Your task to perform on an android device: stop showing notifications on the lock screen Image 0: 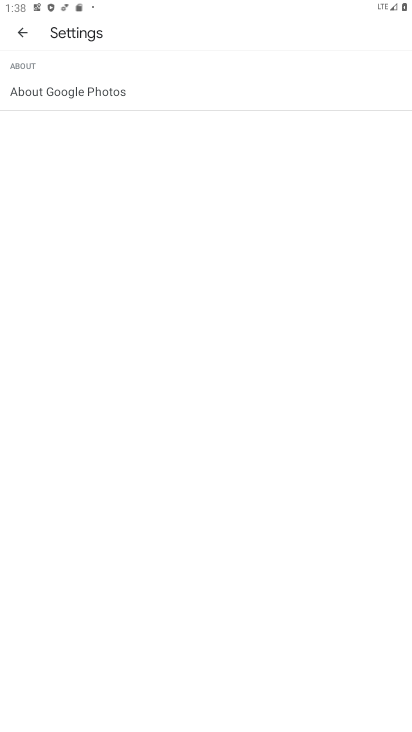
Step 0: press home button
Your task to perform on an android device: stop showing notifications on the lock screen Image 1: 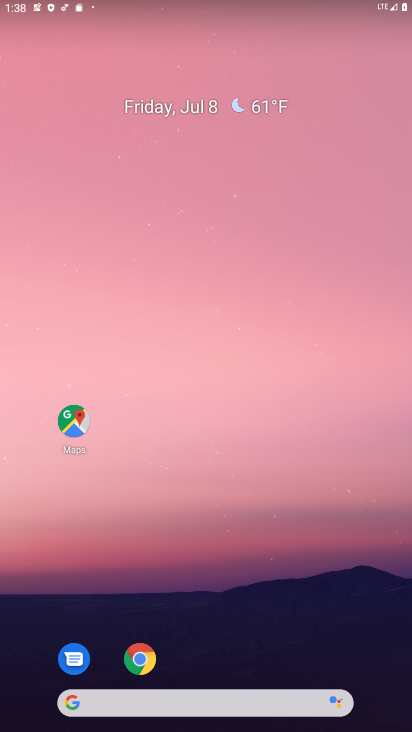
Step 1: drag from (223, 688) to (166, 65)
Your task to perform on an android device: stop showing notifications on the lock screen Image 2: 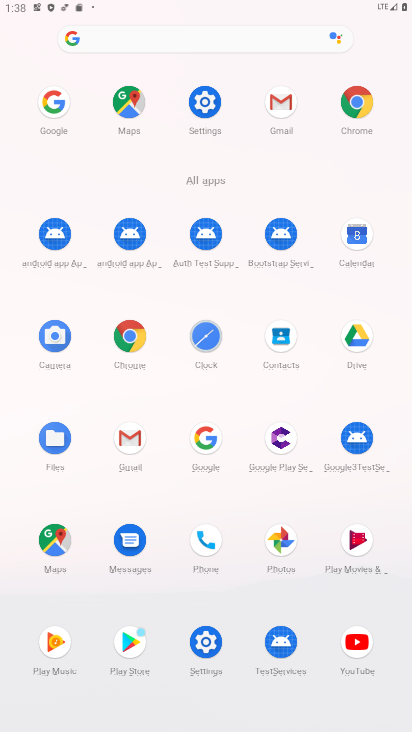
Step 2: click (194, 102)
Your task to perform on an android device: stop showing notifications on the lock screen Image 3: 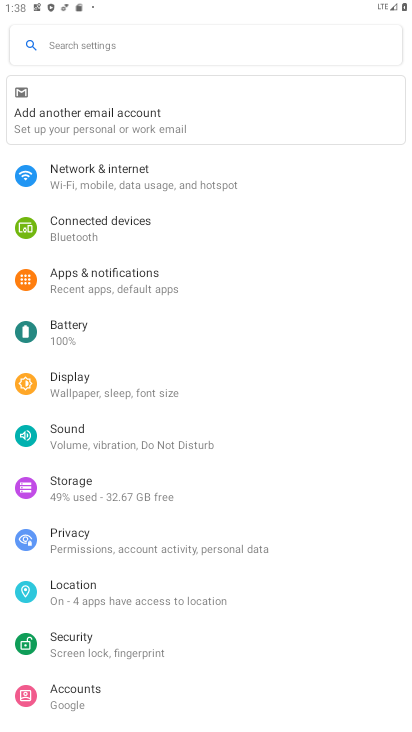
Step 3: click (127, 290)
Your task to perform on an android device: stop showing notifications on the lock screen Image 4: 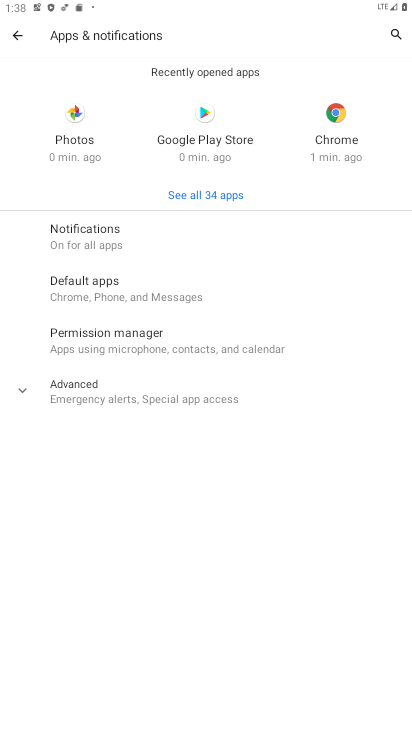
Step 4: click (83, 228)
Your task to perform on an android device: stop showing notifications on the lock screen Image 5: 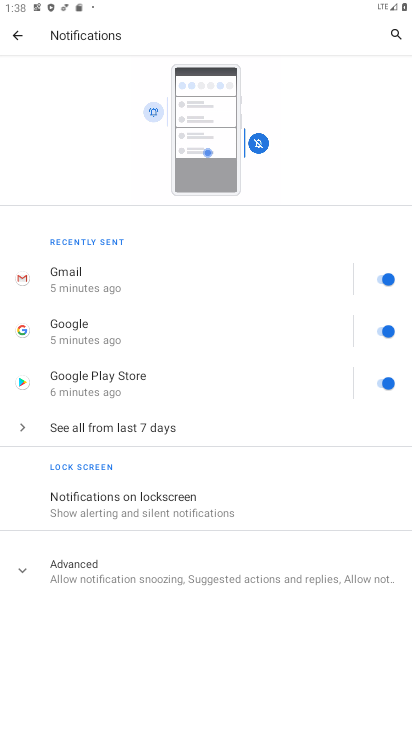
Step 5: click (145, 509)
Your task to perform on an android device: stop showing notifications on the lock screen Image 6: 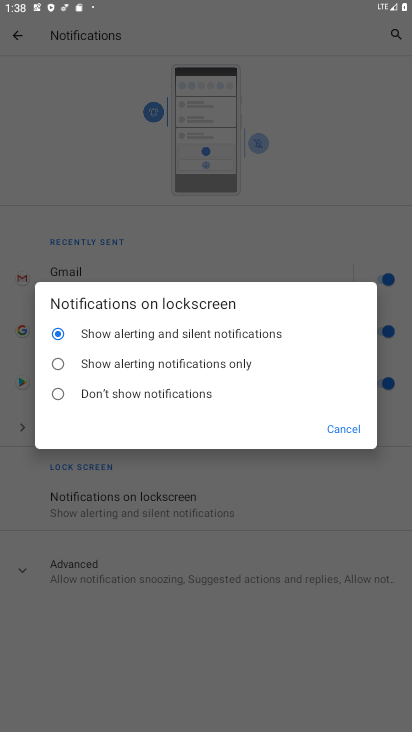
Step 6: click (133, 393)
Your task to perform on an android device: stop showing notifications on the lock screen Image 7: 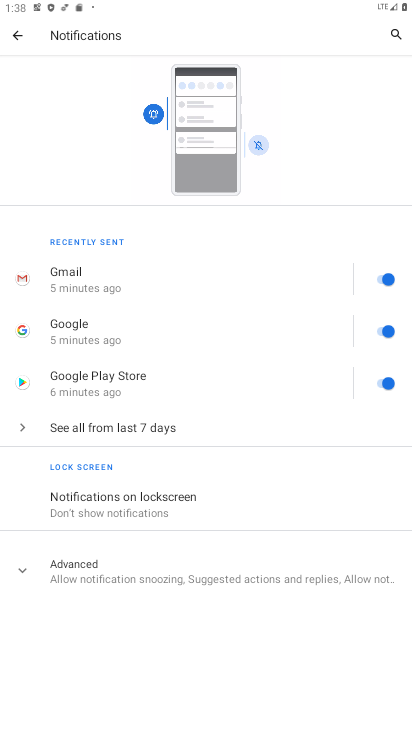
Step 7: task complete